Your task to perform on an android device: turn pop-ups on in chrome Image 0: 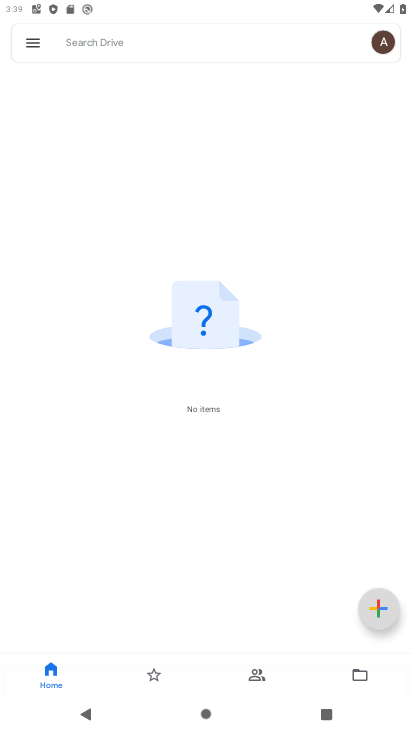
Step 0: press home button
Your task to perform on an android device: turn pop-ups on in chrome Image 1: 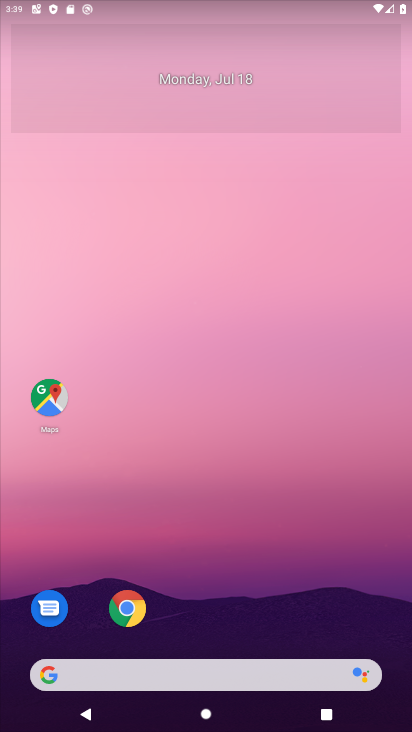
Step 1: click (116, 609)
Your task to perform on an android device: turn pop-ups on in chrome Image 2: 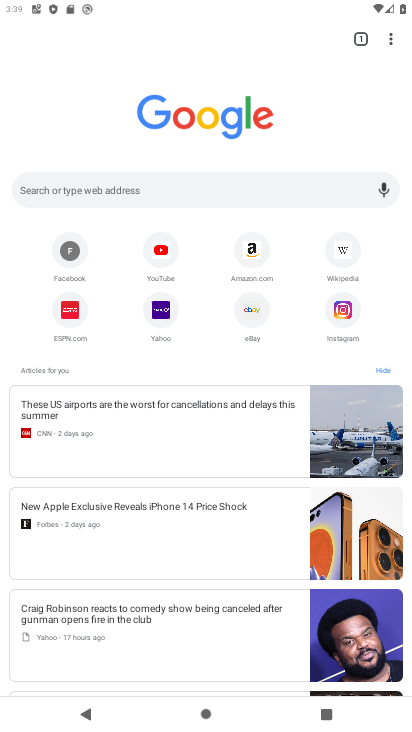
Step 2: click (387, 38)
Your task to perform on an android device: turn pop-ups on in chrome Image 3: 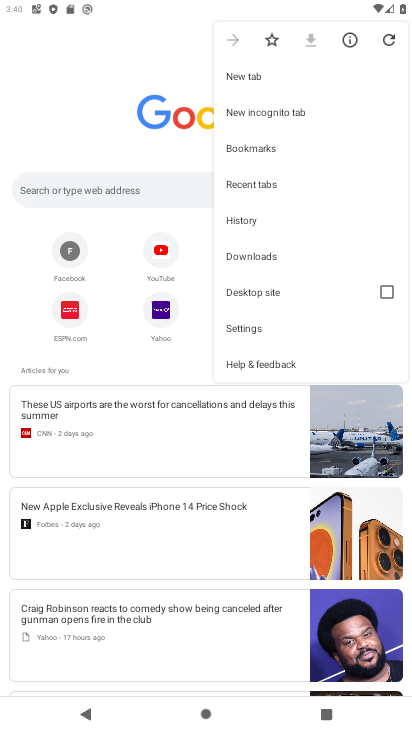
Step 3: task complete